Your task to perform on an android device: Open Maps and search for coffee Image 0: 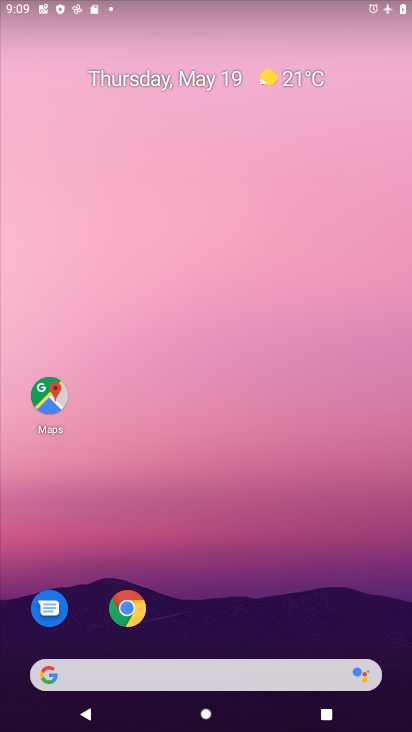
Step 0: click (43, 390)
Your task to perform on an android device: Open Maps and search for coffee Image 1: 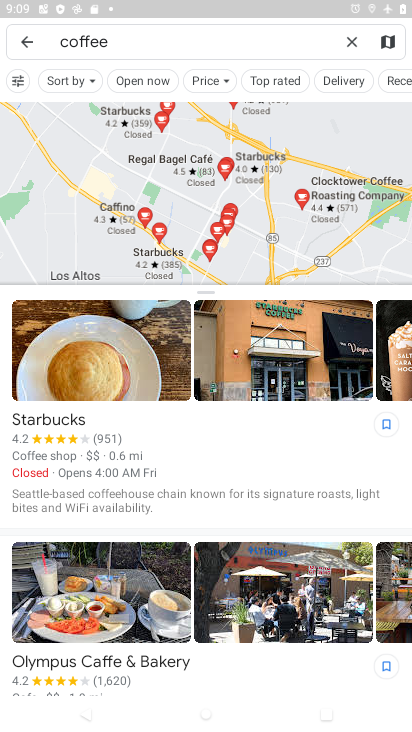
Step 1: click (350, 45)
Your task to perform on an android device: Open Maps and search for coffee Image 2: 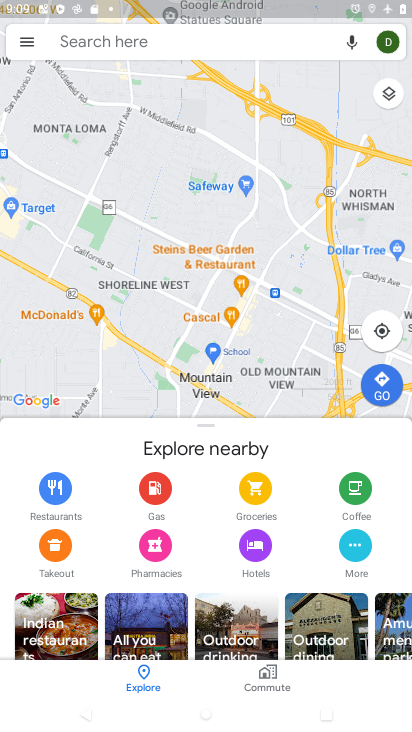
Step 2: click (202, 49)
Your task to perform on an android device: Open Maps and search for coffee Image 3: 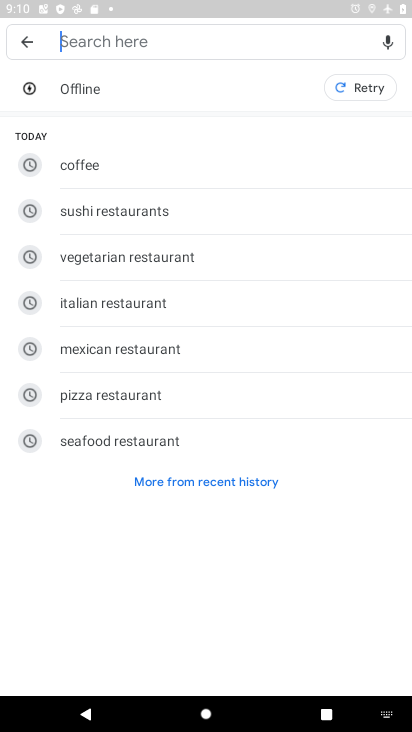
Step 3: click (87, 159)
Your task to perform on an android device: Open Maps and search for coffee Image 4: 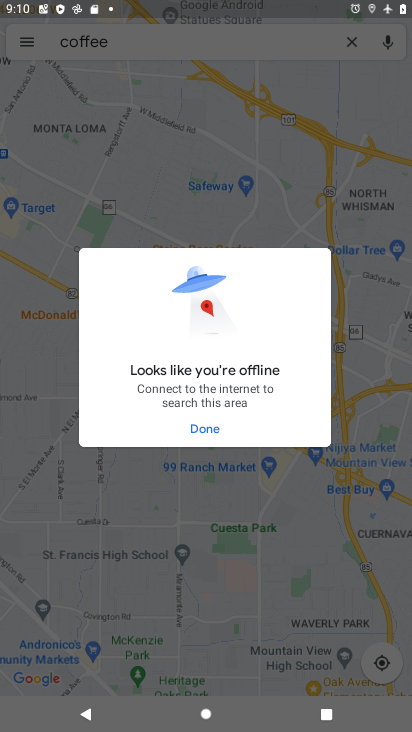
Step 4: click (202, 425)
Your task to perform on an android device: Open Maps and search for coffee Image 5: 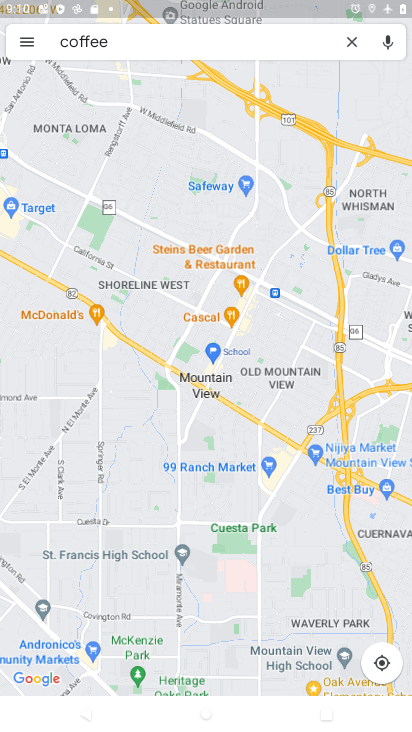
Step 5: task complete